Your task to perform on an android device: turn off sleep mode Image 0: 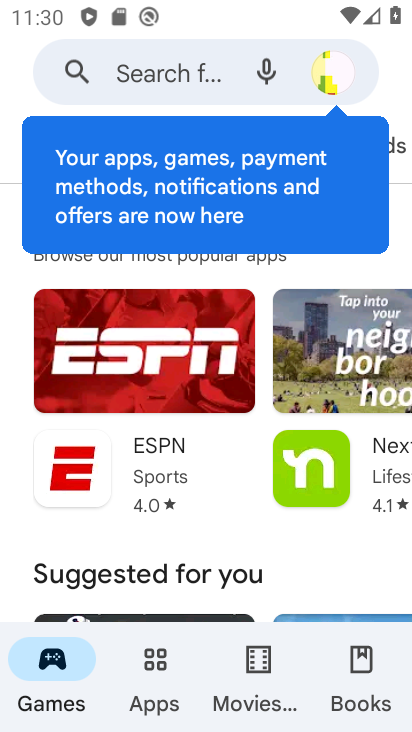
Step 0: task complete